Your task to perform on an android device: Go to Google maps Image 0: 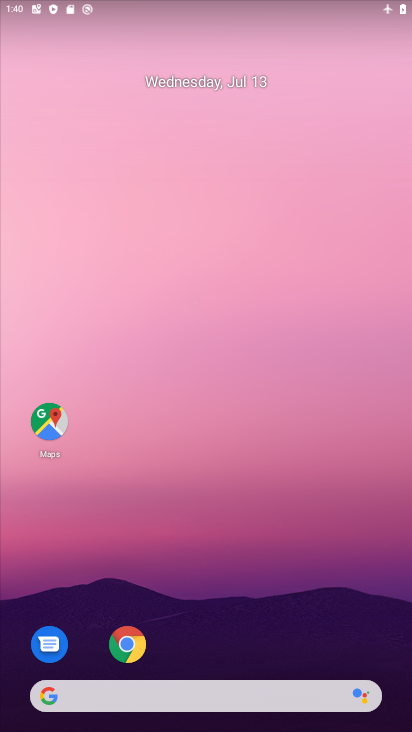
Step 0: drag from (295, 584) to (249, 87)
Your task to perform on an android device: Go to Google maps Image 1: 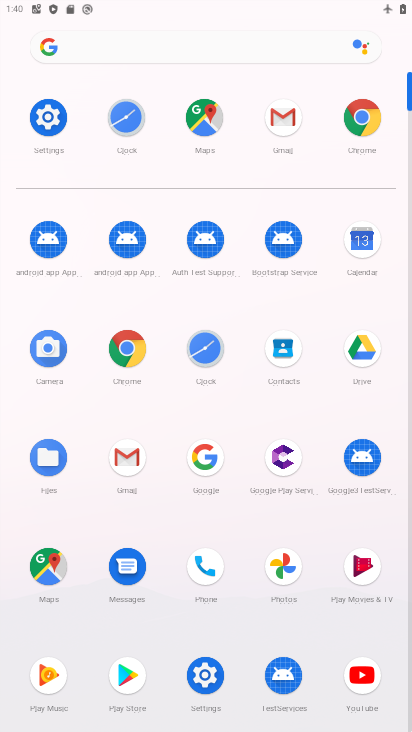
Step 1: click (217, 116)
Your task to perform on an android device: Go to Google maps Image 2: 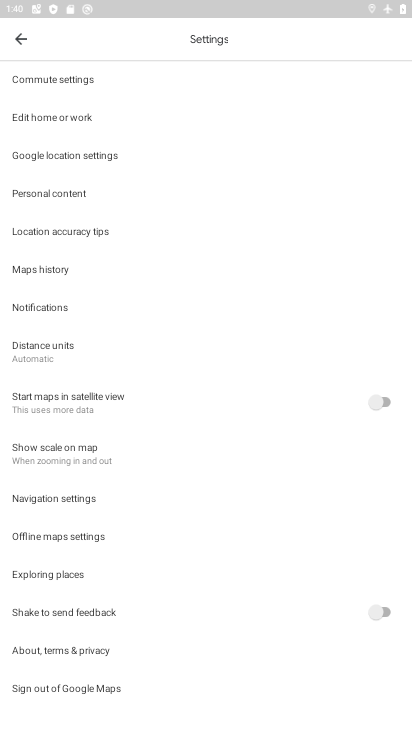
Step 2: click (19, 44)
Your task to perform on an android device: Go to Google maps Image 3: 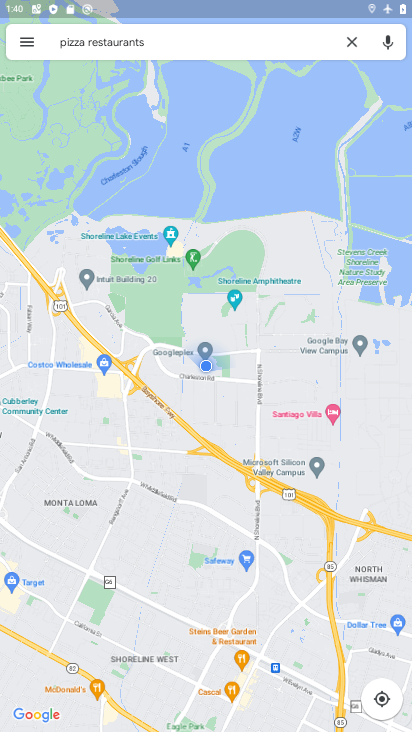
Step 3: task complete